Your task to perform on an android device: check out phone information Image 0: 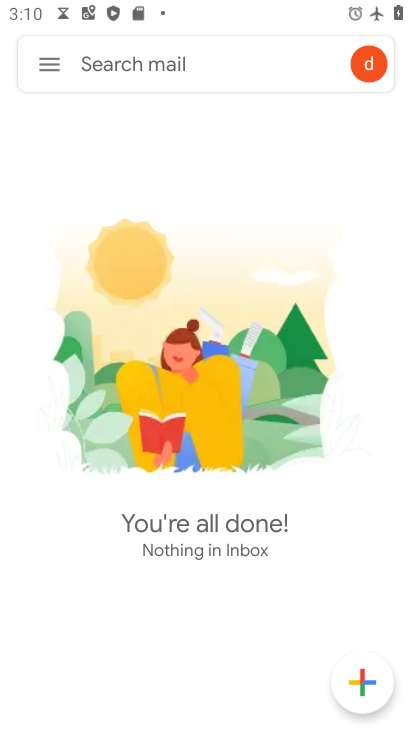
Step 0: press back button
Your task to perform on an android device: check out phone information Image 1: 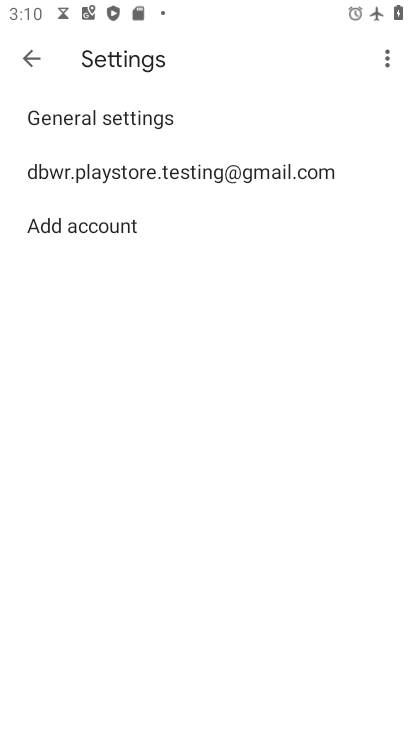
Step 1: press home button
Your task to perform on an android device: check out phone information Image 2: 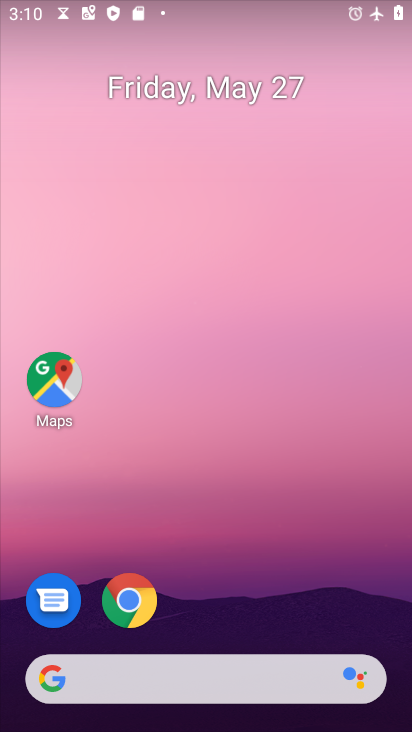
Step 2: drag from (262, 571) to (242, 17)
Your task to perform on an android device: check out phone information Image 3: 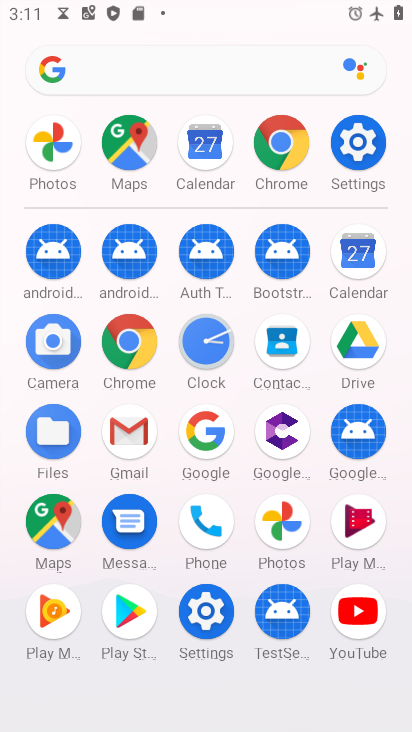
Step 3: click (207, 608)
Your task to perform on an android device: check out phone information Image 4: 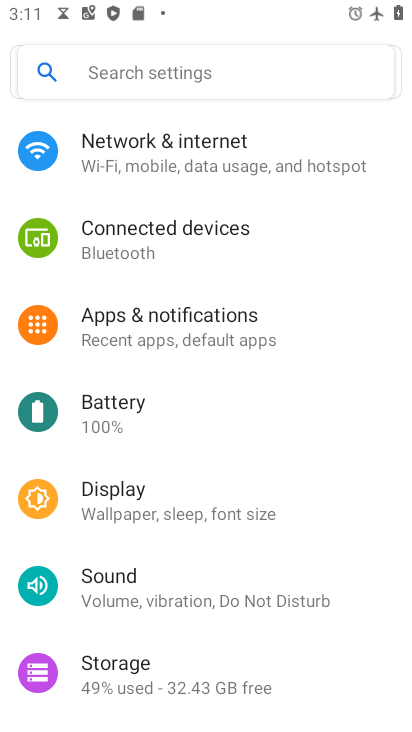
Step 4: drag from (303, 632) to (308, 133)
Your task to perform on an android device: check out phone information Image 5: 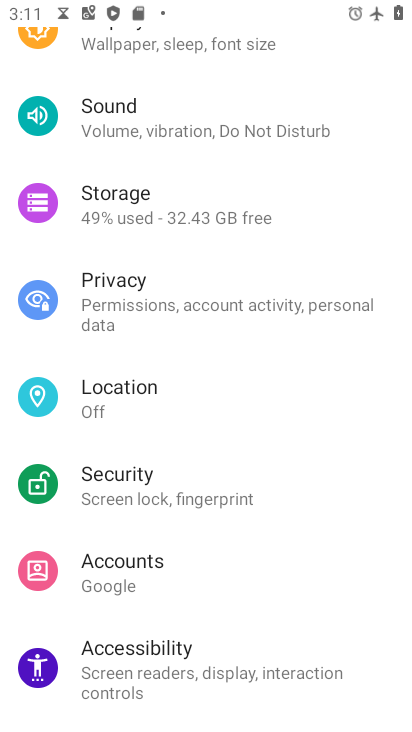
Step 5: drag from (278, 581) to (269, 68)
Your task to perform on an android device: check out phone information Image 6: 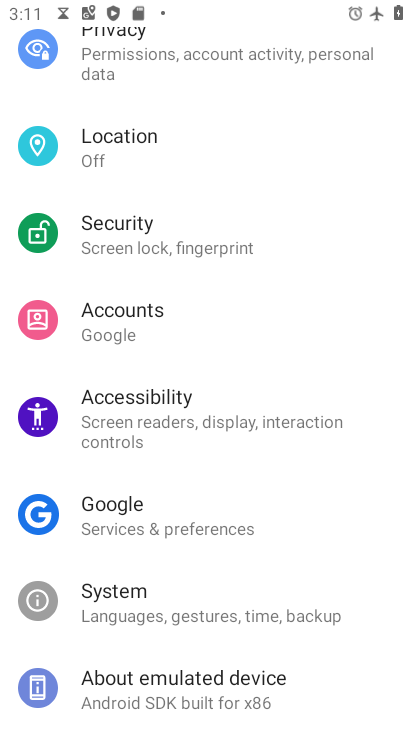
Step 6: click (226, 691)
Your task to perform on an android device: check out phone information Image 7: 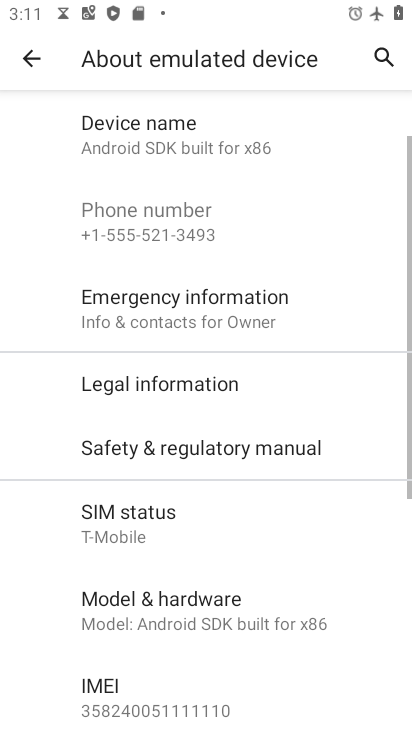
Step 7: task complete